Your task to perform on an android device: turn off sleep mode Image 0: 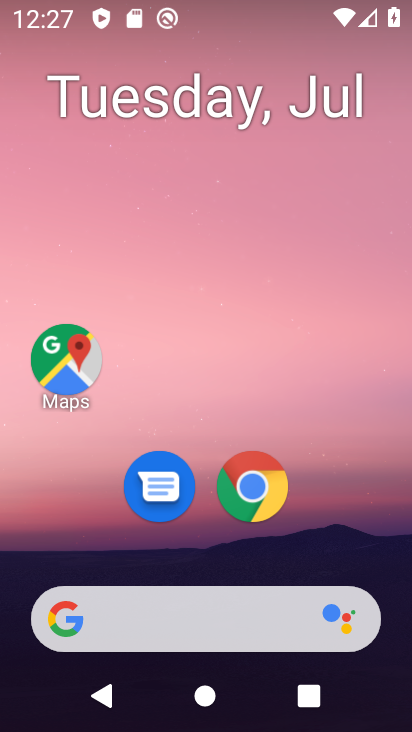
Step 0: press home button
Your task to perform on an android device: turn off sleep mode Image 1: 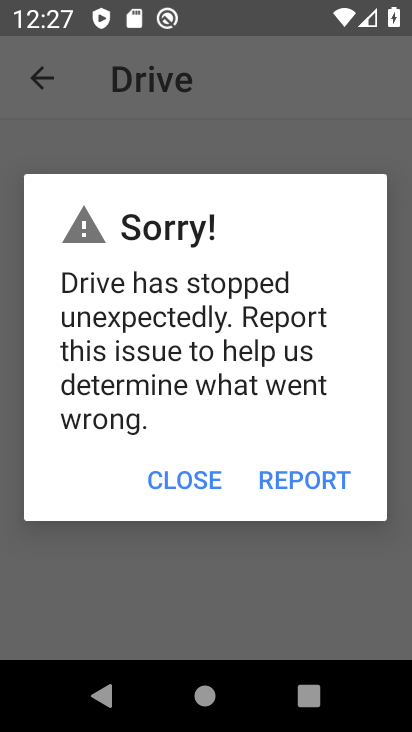
Step 1: click (351, 112)
Your task to perform on an android device: turn off sleep mode Image 2: 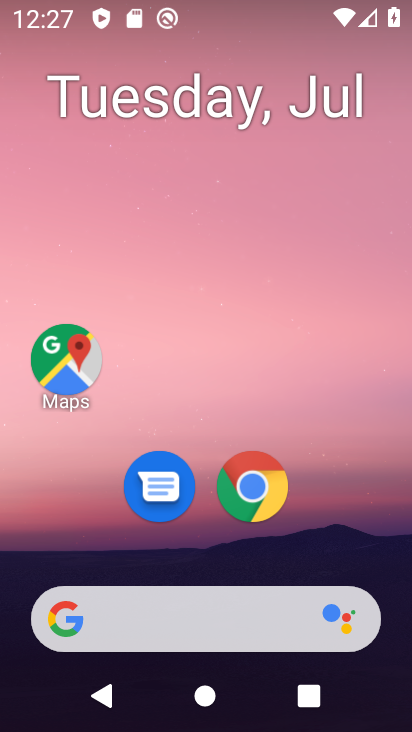
Step 2: drag from (339, 536) to (333, 74)
Your task to perform on an android device: turn off sleep mode Image 3: 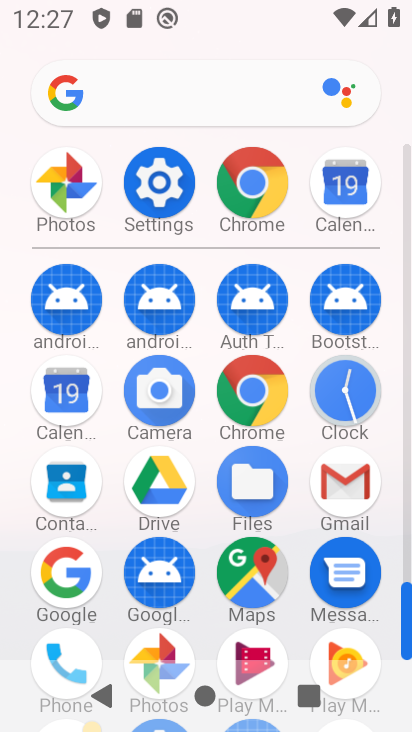
Step 3: click (164, 196)
Your task to perform on an android device: turn off sleep mode Image 4: 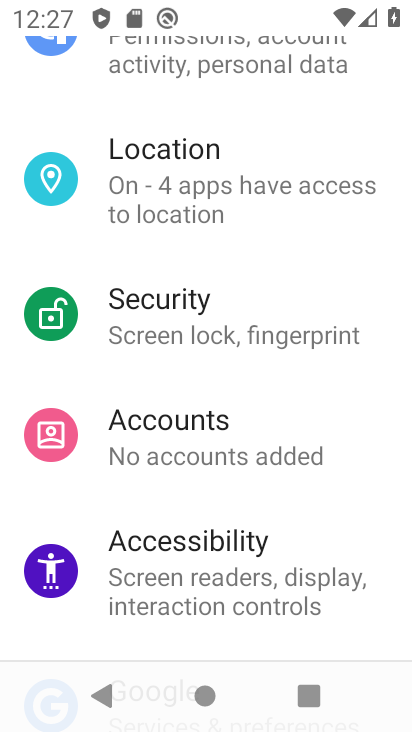
Step 4: drag from (379, 273) to (378, 396)
Your task to perform on an android device: turn off sleep mode Image 5: 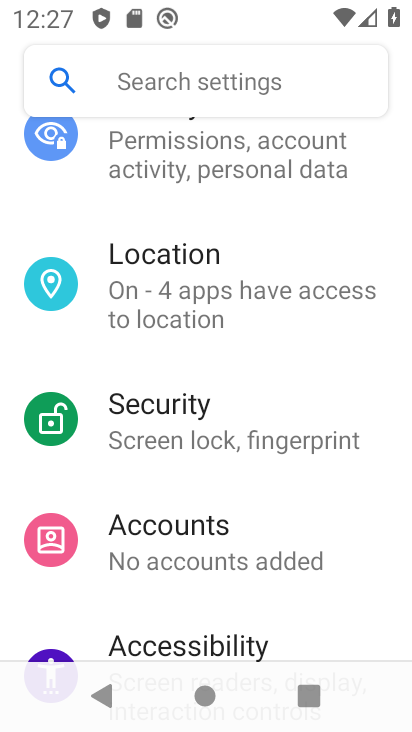
Step 5: drag from (371, 266) to (365, 383)
Your task to perform on an android device: turn off sleep mode Image 6: 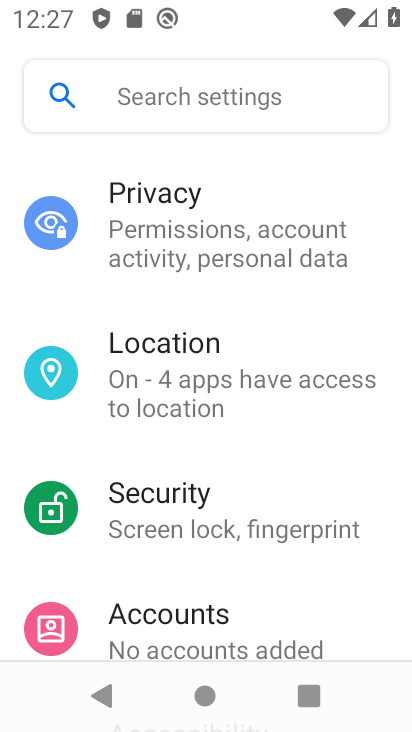
Step 6: drag from (368, 284) to (356, 405)
Your task to perform on an android device: turn off sleep mode Image 7: 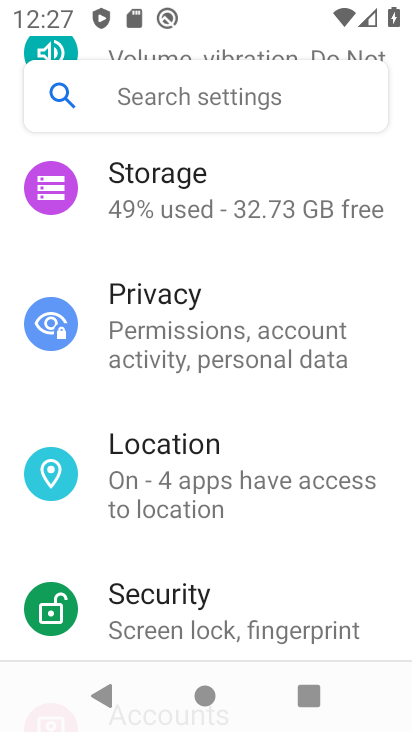
Step 7: drag from (362, 287) to (363, 415)
Your task to perform on an android device: turn off sleep mode Image 8: 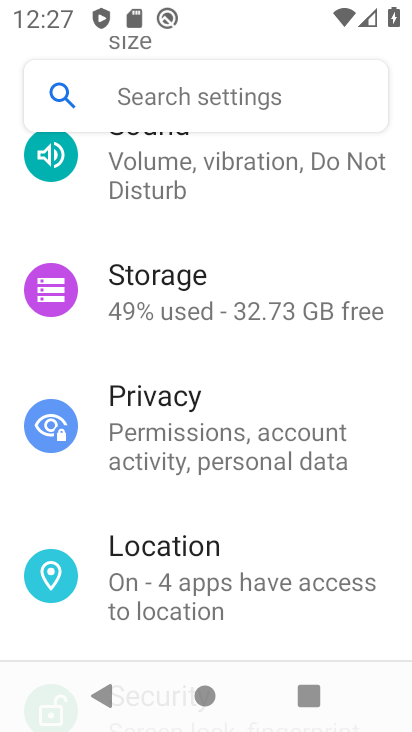
Step 8: drag from (357, 254) to (357, 396)
Your task to perform on an android device: turn off sleep mode Image 9: 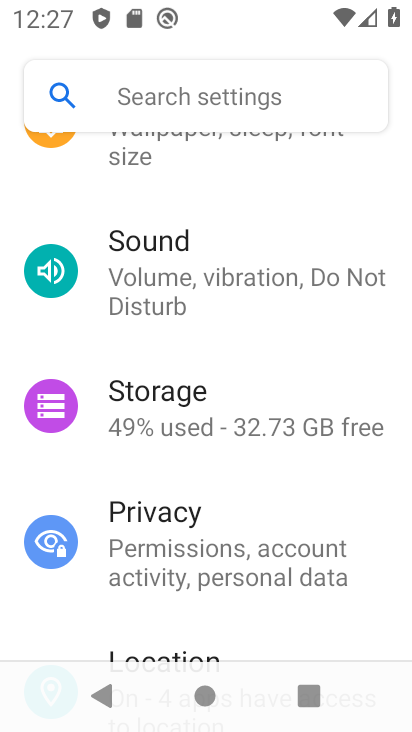
Step 9: drag from (351, 218) to (350, 379)
Your task to perform on an android device: turn off sleep mode Image 10: 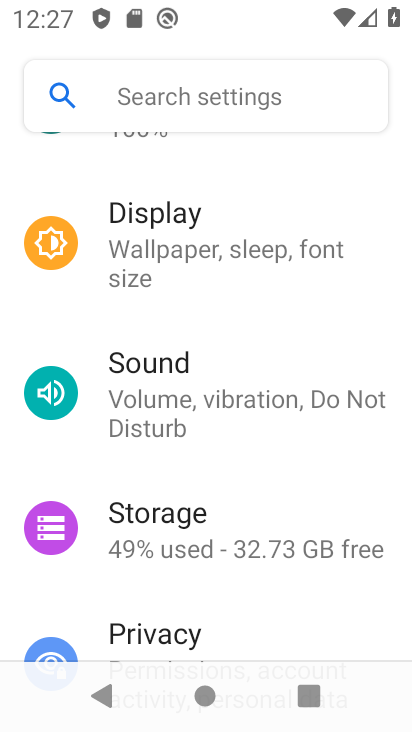
Step 10: drag from (361, 195) to (356, 339)
Your task to perform on an android device: turn off sleep mode Image 11: 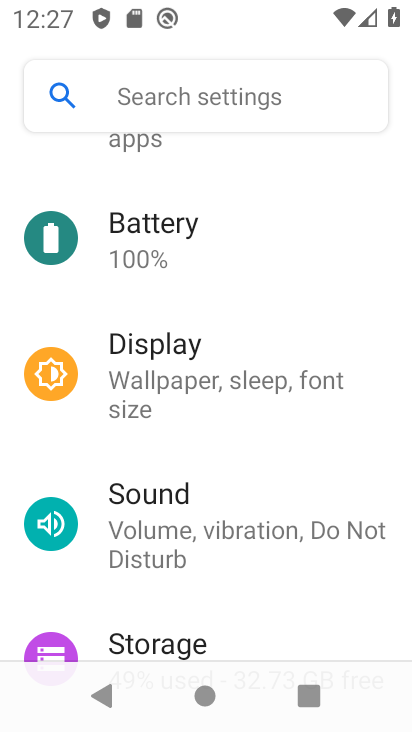
Step 11: drag from (356, 237) to (364, 313)
Your task to perform on an android device: turn off sleep mode Image 12: 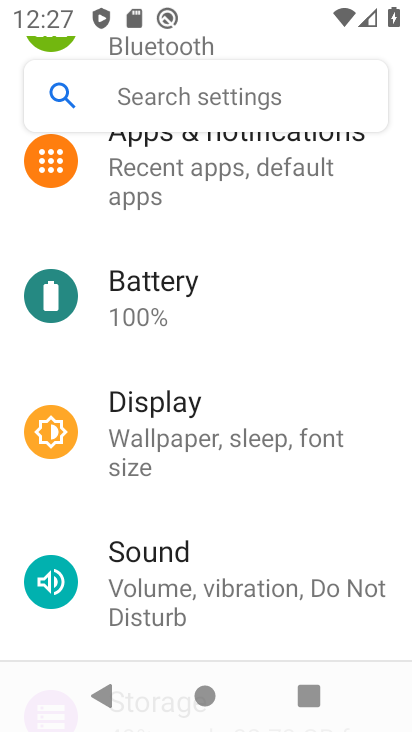
Step 12: click (263, 437)
Your task to perform on an android device: turn off sleep mode Image 13: 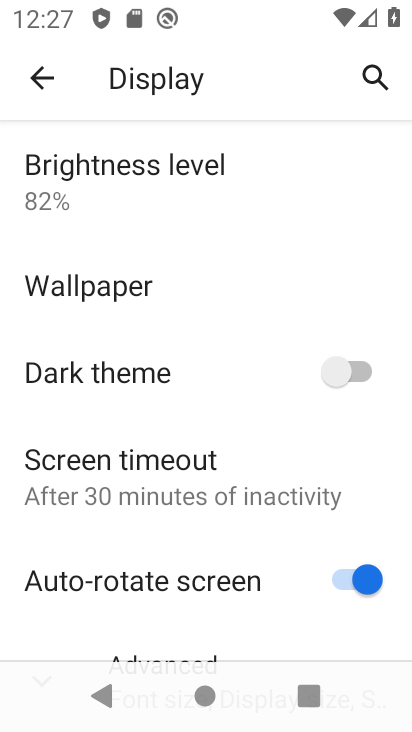
Step 13: drag from (272, 552) to (287, 392)
Your task to perform on an android device: turn off sleep mode Image 14: 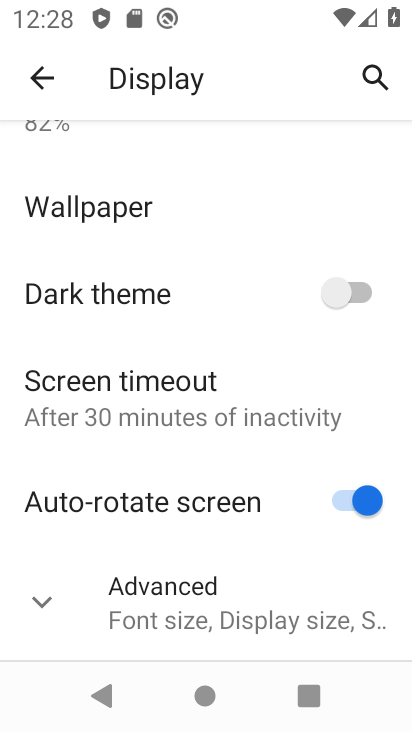
Step 14: click (266, 597)
Your task to perform on an android device: turn off sleep mode Image 15: 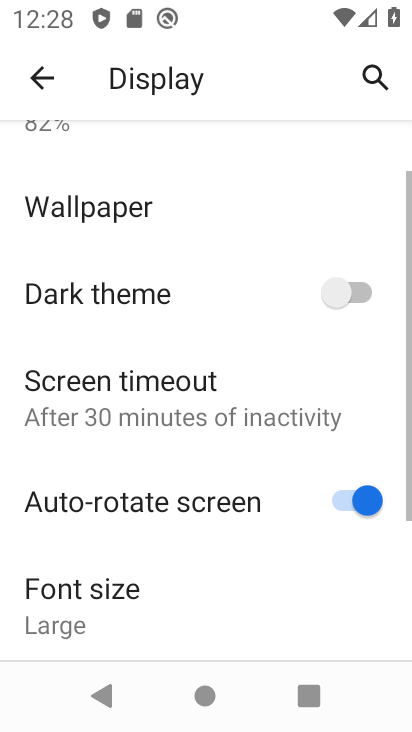
Step 15: task complete